Your task to perform on an android device: open app "eBay: The shopping marketplace" Image 0: 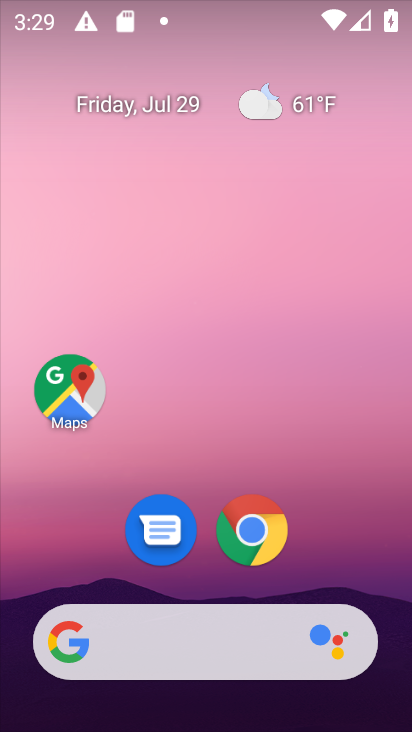
Step 0: drag from (335, 477) to (329, 61)
Your task to perform on an android device: open app "eBay: The shopping marketplace" Image 1: 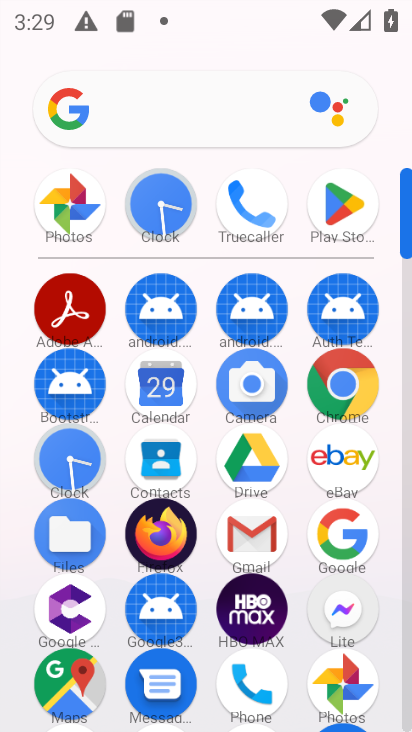
Step 1: click (335, 209)
Your task to perform on an android device: open app "eBay: The shopping marketplace" Image 2: 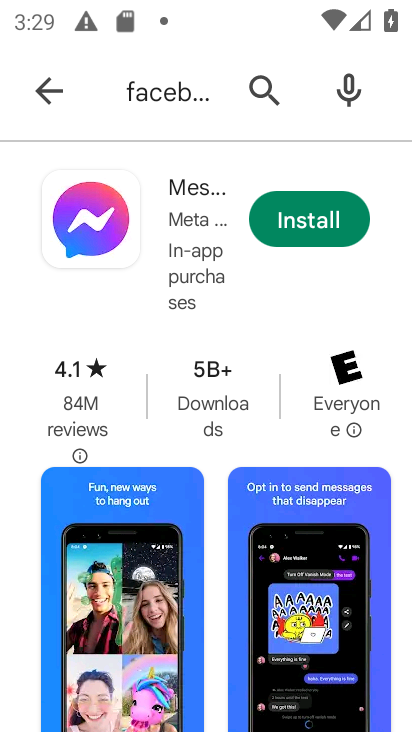
Step 2: click (263, 85)
Your task to perform on an android device: open app "eBay: The shopping marketplace" Image 3: 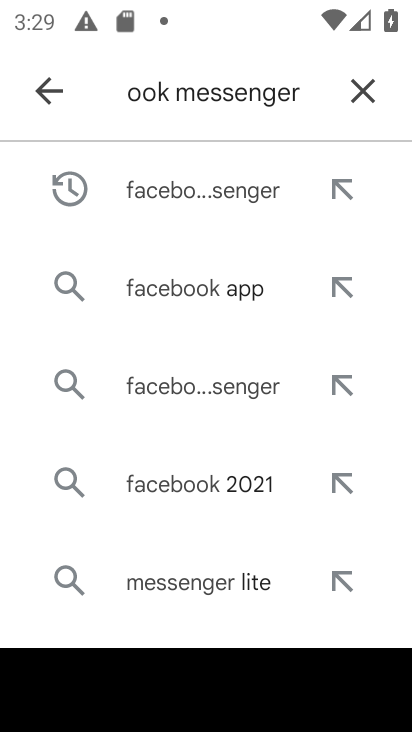
Step 3: click (374, 93)
Your task to perform on an android device: open app "eBay: The shopping marketplace" Image 4: 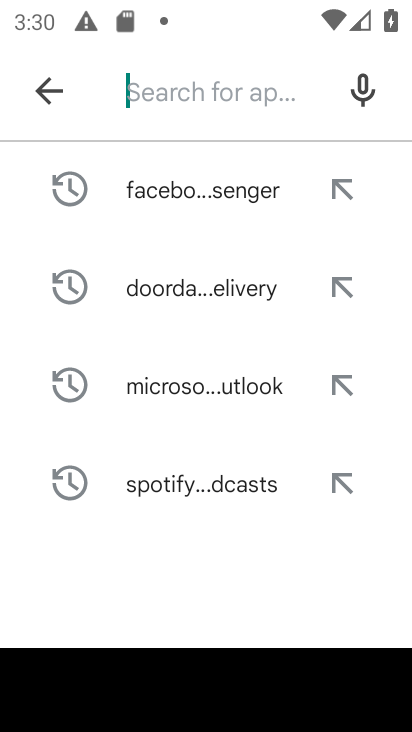
Step 4: type "eBay: The shopping marketplace"
Your task to perform on an android device: open app "eBay: The shopping marketplace" Image 5: 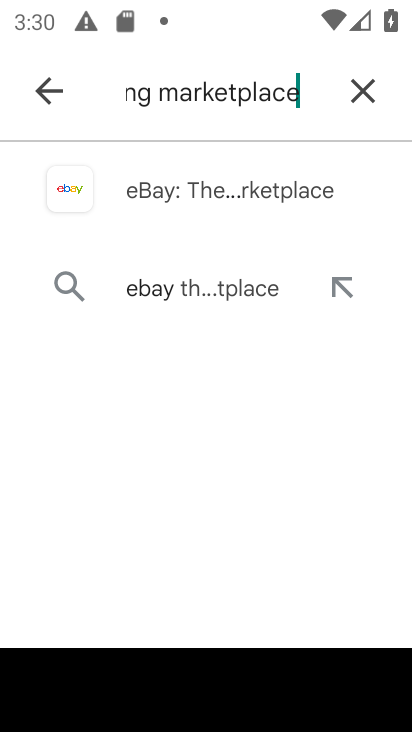
Step 5: click (188, 195)
Your task to perform on an android device: open app "eBay: The shopping marketplace" Image 6: 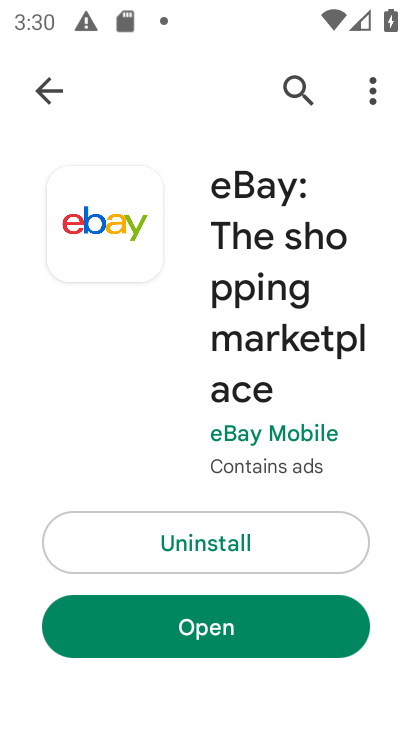
Step 6: click (208, 633)
Your task to perform on an android device: open app "eBay: The shopping marketplace" Image 7: 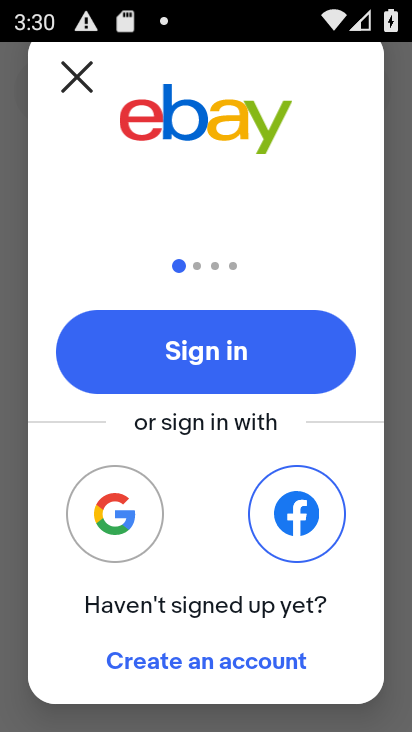
Step 7: task complete